Your task to perform on an android device: delete the emails in spam in the gmail app Image 0: 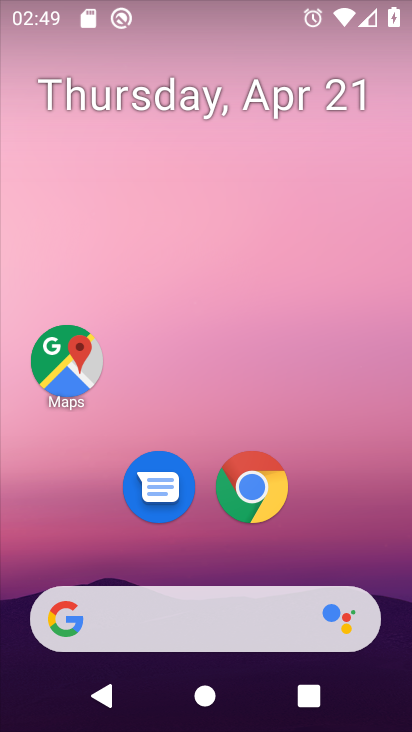
Step 0: click (378, 270)
Your task to perform on an android device: delete the emails in spam in the gmail app Image 1: 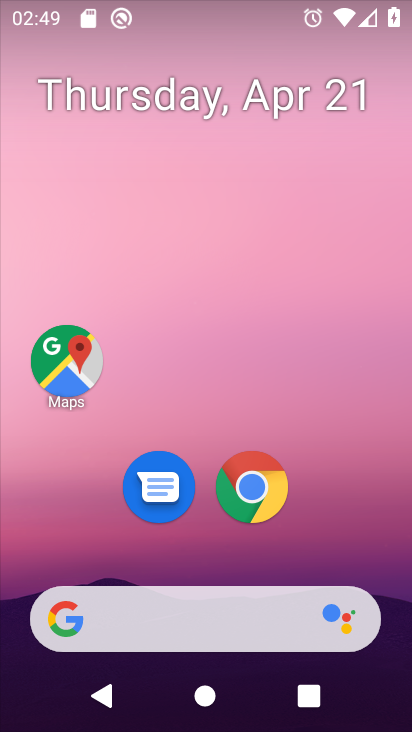
Step 1: drag from (212, 551) to (282, 167)
Your task to perform on an android device: delete the emails in spam in the gmail app Image 2: 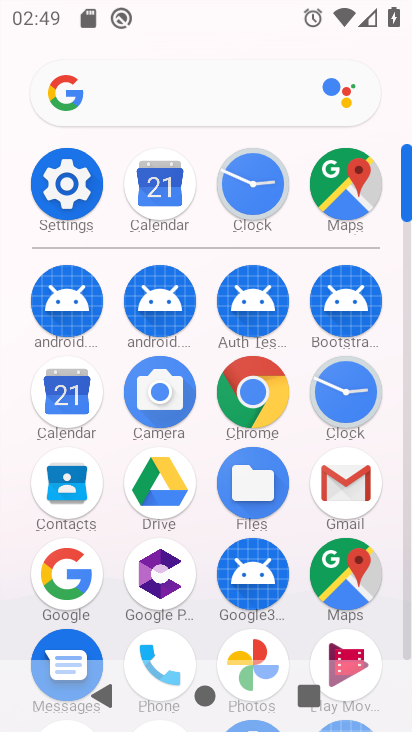
Step 2: click (330, 496)
Your task to perform on an android device: delete the emails in spam in the gmail app Image 3: 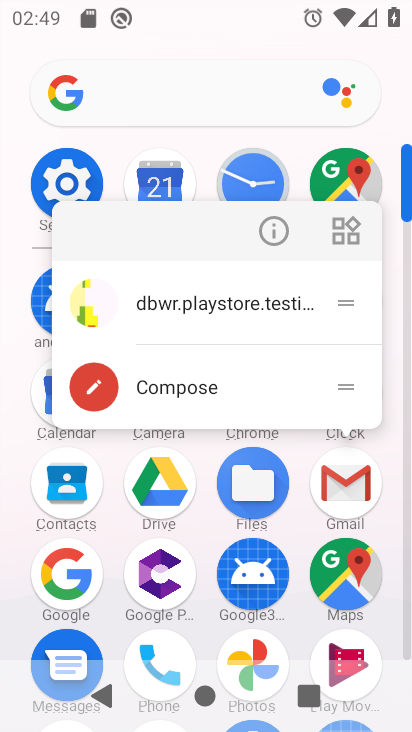
Step 3: click (263, 234)
Your task to perform on an android device: delete the emails in spam in the gmail app Image 4: 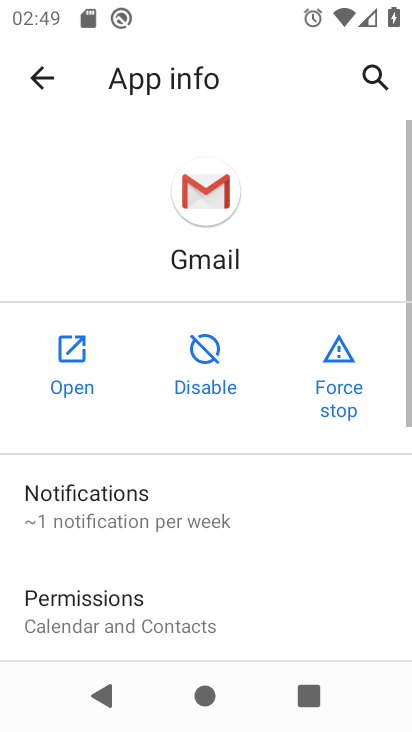
Step 4: click (80, 350)
Your task to perform on an android device: delete the emails in spam in the gmail app Image 5: 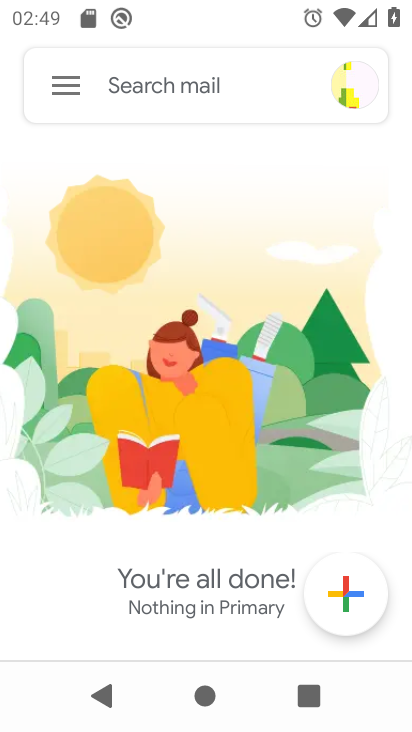
Step 5: click (59, 74)
Your task to perform on an android device: delete the emails in spam in the gmail app Image 6: 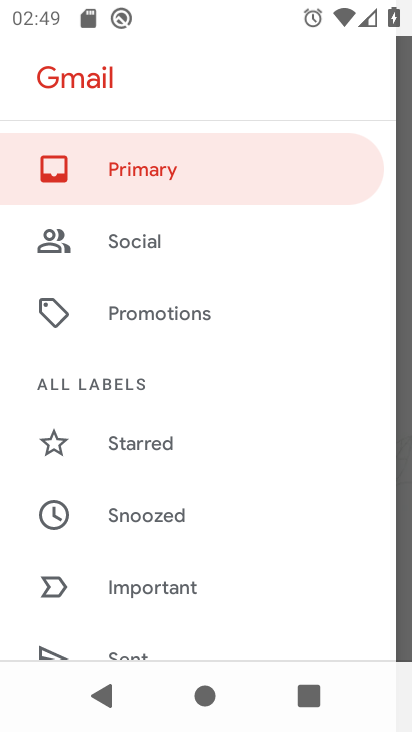
Step 6: drag from (192, 533) to (231, 192)
Your task to perform on an android device: delete the emails in spam in the gmail app Image 7: 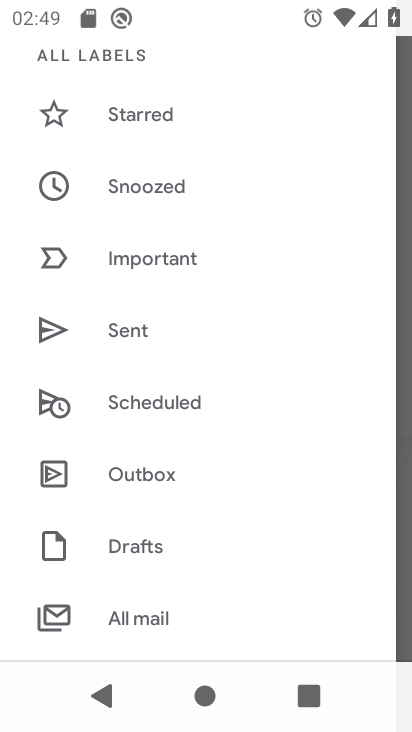
Step 7: click (224, 219)
Your task to perform on an android device: delete the emails in spam in the gmail app Image 8: 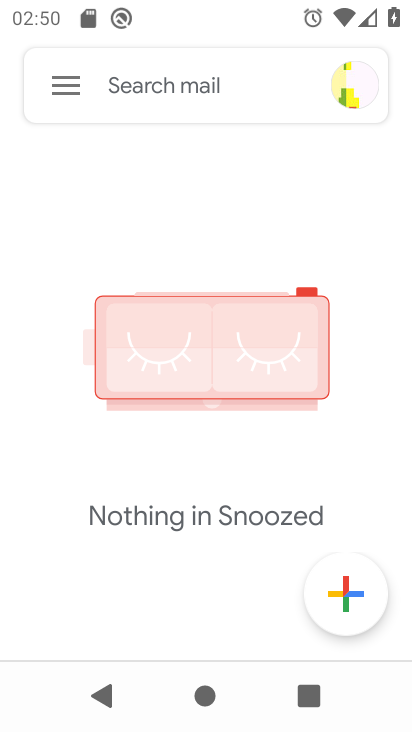
Step 8: drag from (142, 507) to (197, 200)
Your task to perform on an android device: delete the emails in spam in the gmail app Image 9: 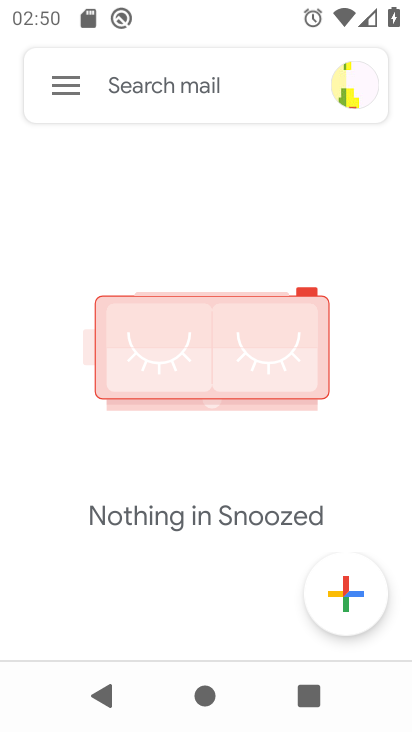
Step 9: click (77, 84)
Your task to perform on an android device: delete the emails in spam in the gmail app Image 10: 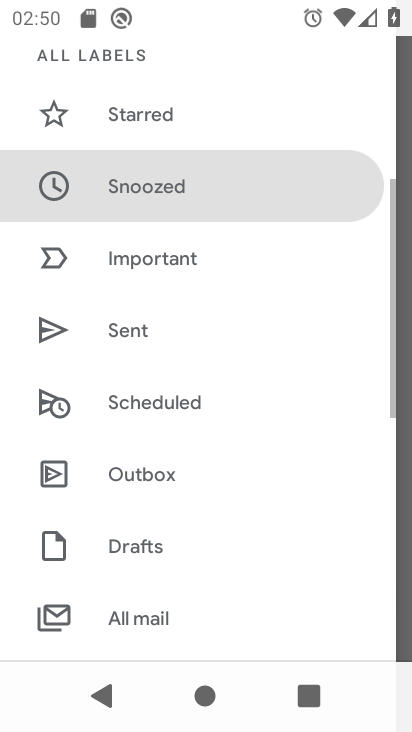
Step 10: drag from (166, 459) to (284, 72)
Your task to perform on an android device: delete the emails in spam in the gmail app Image 11: 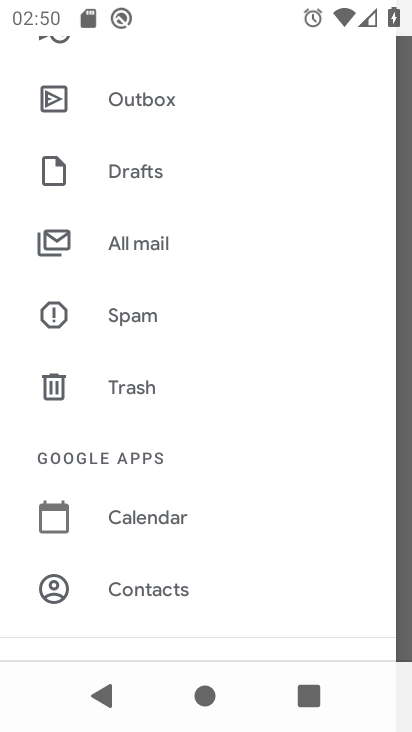
Step 11: drag from (209, 441) to (319, 81)
Your task to perform on an android device: delete the emails in spam in the gmail app Image 12: 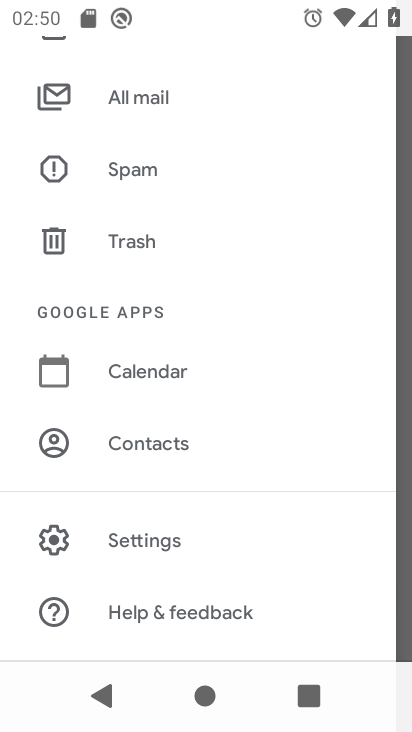
Step 12: drag from (179, 189) to (186, 506)
Your task to perform on an android device: delete the emails in spam in the gmail app Image 13: 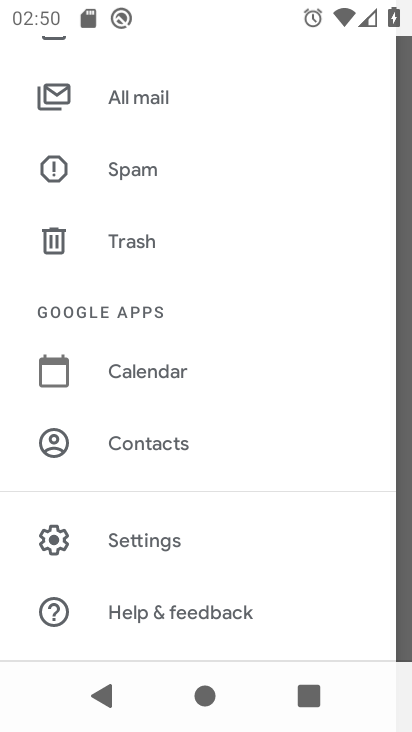
Step 13: click (155, 175)
Your task to perform on an android device: delete the emails in spam in the gmail app Image 14: 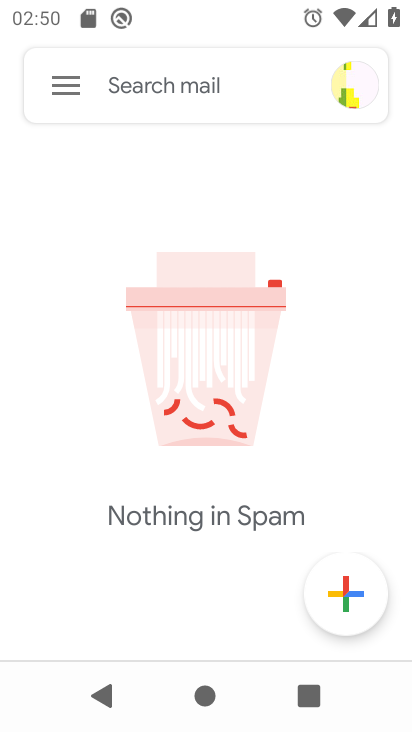
Step 14: drag from (244, 176) to (285, 580)
Your task to perform on an android device: delete the emails in spam in the gmail app Image 15: 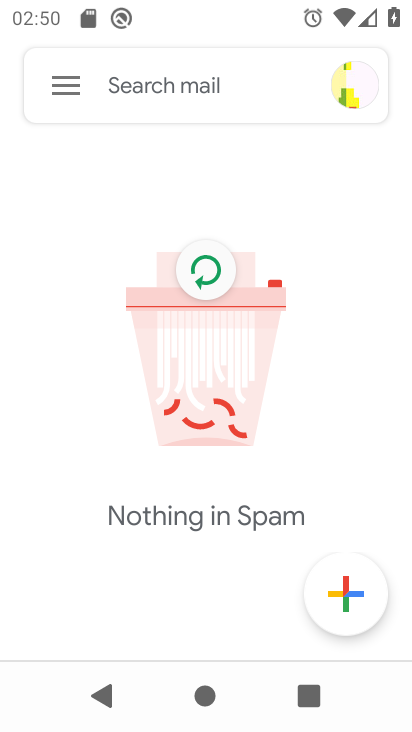
Step 15: click (203, 483)
Your task to perform on an android device: delete the emails in spam in the gmail app Image 16: 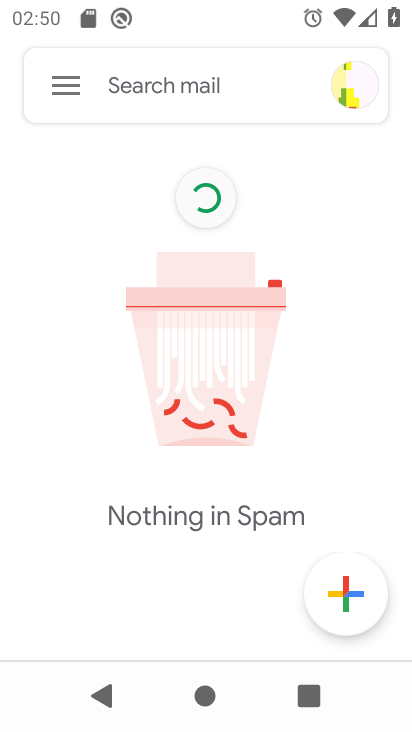
Step 16: click (200, 475)
Your task to perform on an android device: delete the emails in spam in the gmail app Image 17: 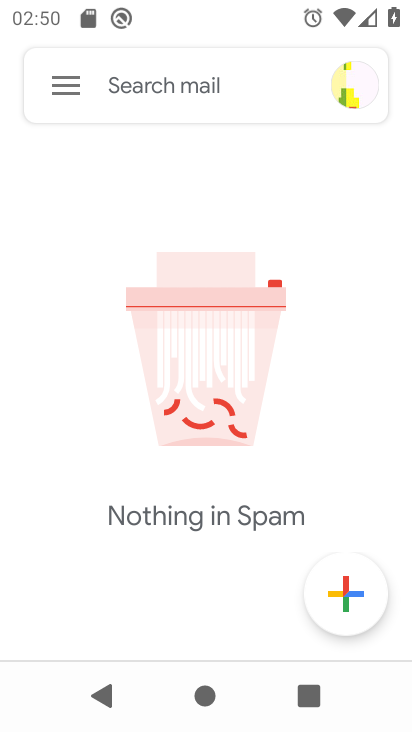
Step 17: task complete